Your task to perform on an android device: Go to Amazon Image 0: 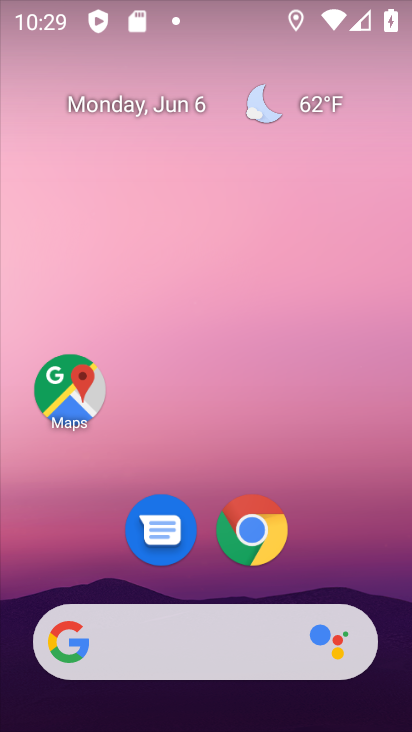
Step 0: click (250, 525)
Your task to perform on an android device: Go to Amazon Image 1: 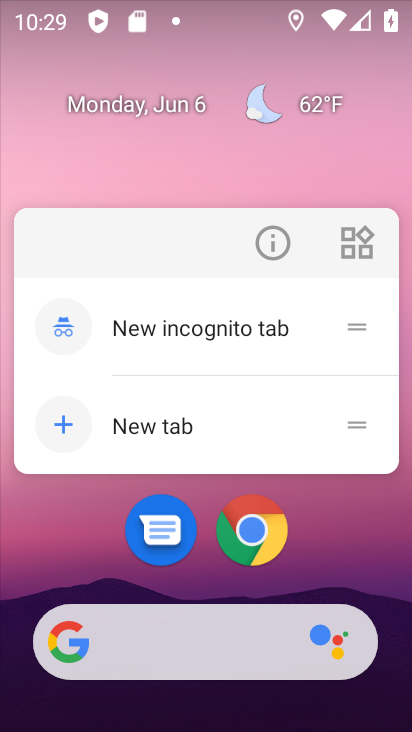
Step 1: click (275, 518)
Your task to perform on an android device: Go to Amazon Image 2: 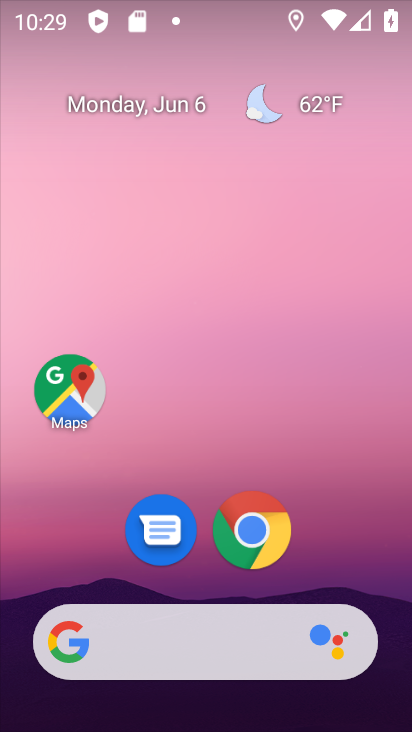
Step 2: click (253, 531)
Your task to perform on an android device: Go to Amazon Image 3: 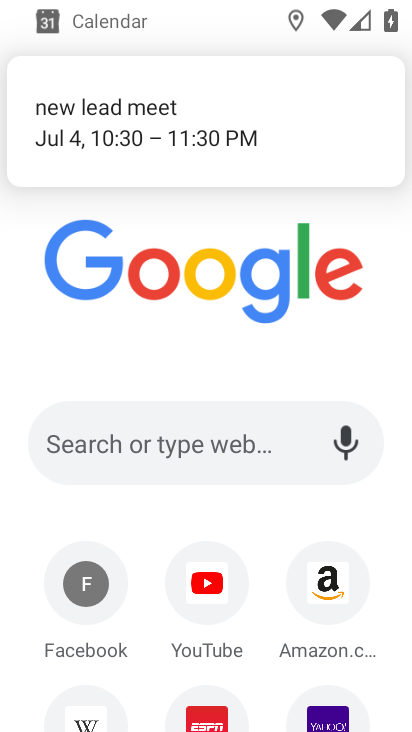
Step 3: click (322, 582)
Your task to perform on an android device: Go to Amazon Image 4: 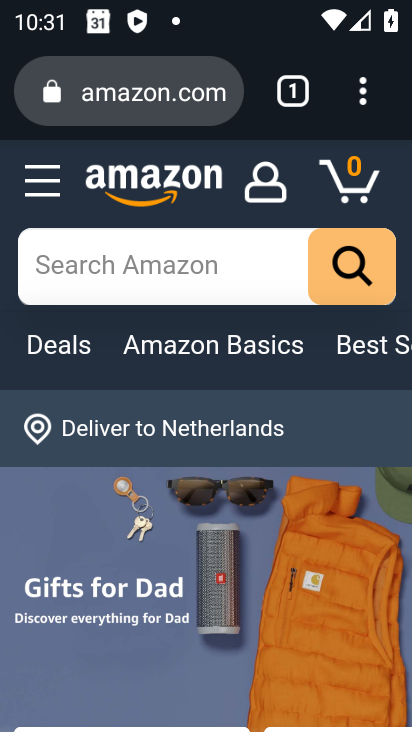
Step 4: task complete